Your task to perform on an android device: Is it going to rain tomorrow? Image 0: 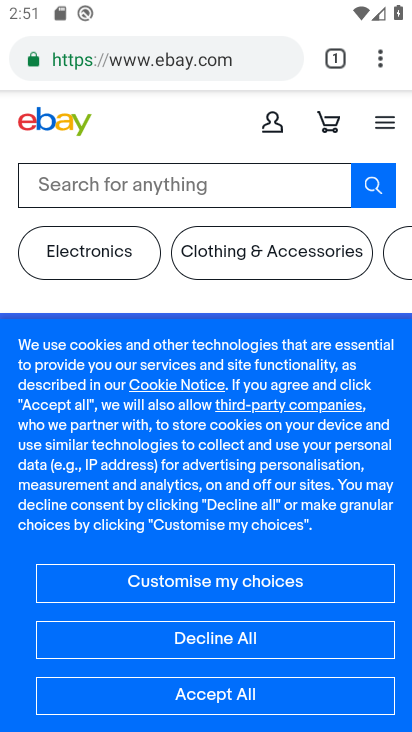
Step 0: press home button
Your task to perform on an android device: Is it going to rain tomorrow? Image 1: 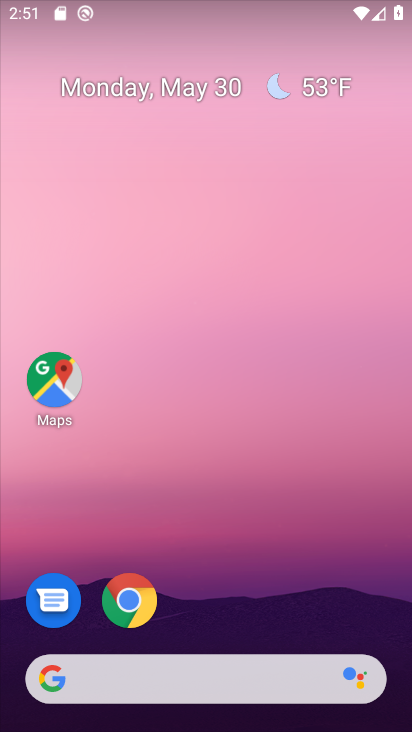
Step 1: click (303, 86)
Your task to perform on an android device: Is it going to rain tomorrow? Image 2: 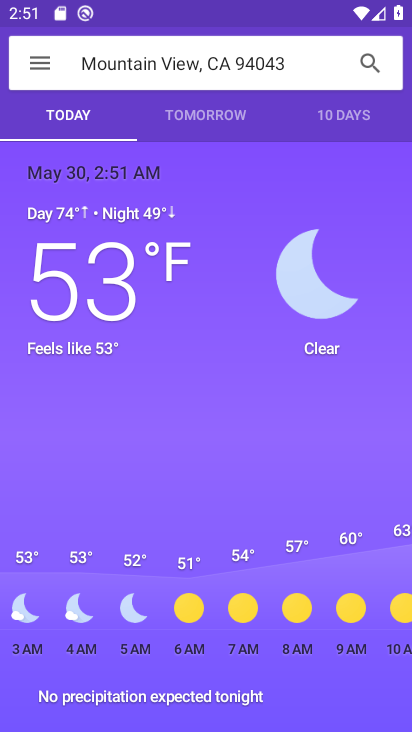
Step 2: click (200, 126)
Your task to perform on an android device: Is it going to rain tomorrow? Image 3: 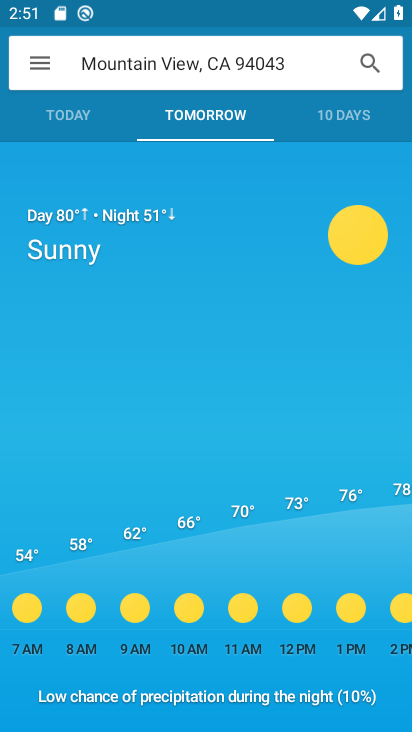
Step 3: task complete